Your task to perform on an android device: turn pop-ups off in chrome Image 0: 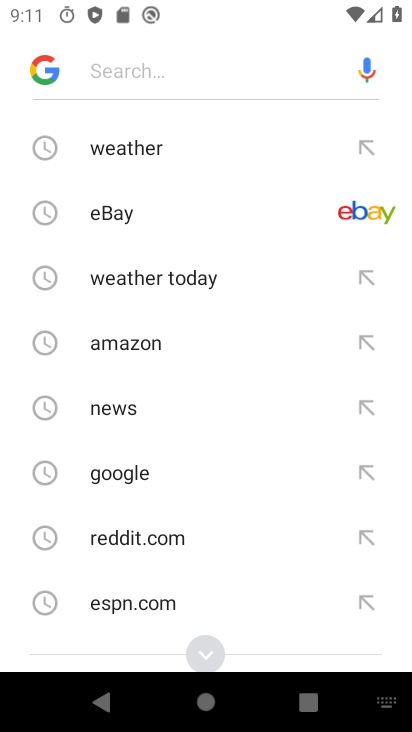
Step 0: press home button
Your task to perform on an android device: turn pop-ups off in chrome Image 1: 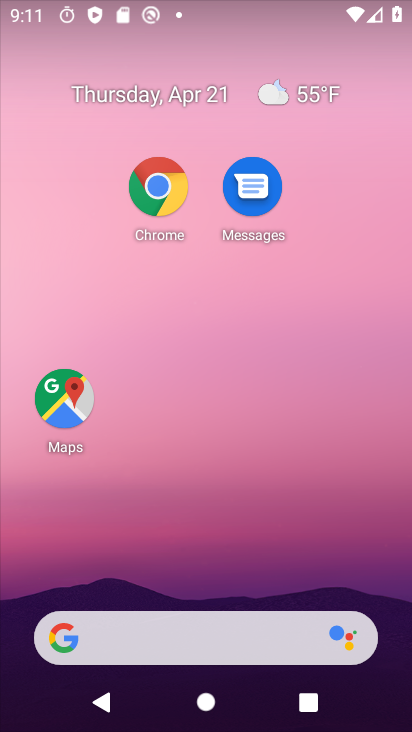
Step 1: click (154, 192)
Your task to perform on an android device: turn pop-ups off in chrome Image 2: 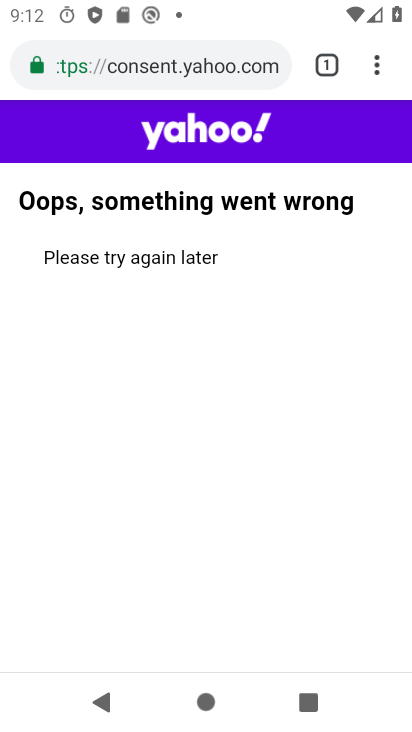
Step 2: click (372, 59)
Your task to perform on an android device: turn pop-ups off in chrome Image 3: 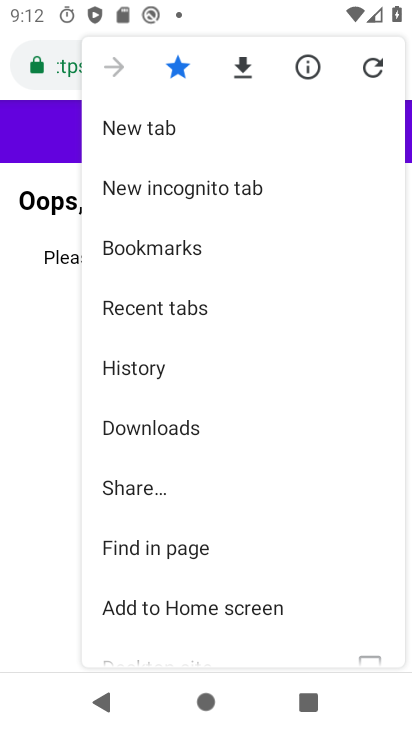
Step 3: drag from (191, 569) to (286, 117)
Your task to perform on an android device: turn pop-ups off in chrome Image 4: 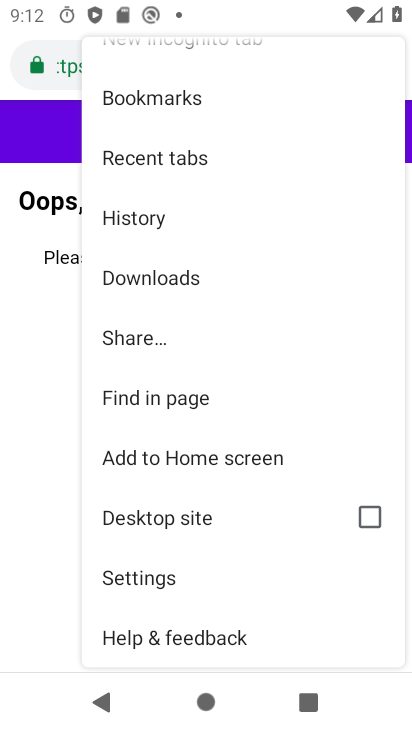
Step 4: click (161, 592)
Your task to perform on an android device: turn pop-ups off in chrome Image 5: 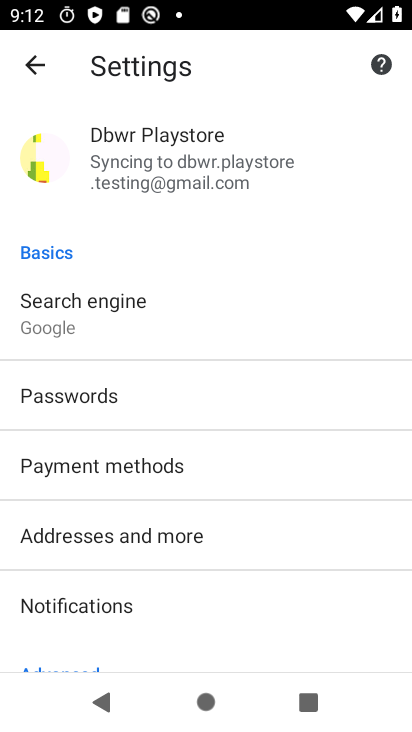
Step 5: drag from (159, 474) to (205, 98)
Your task to perform on an android device: turn pop-ups off in chrome Image 6: 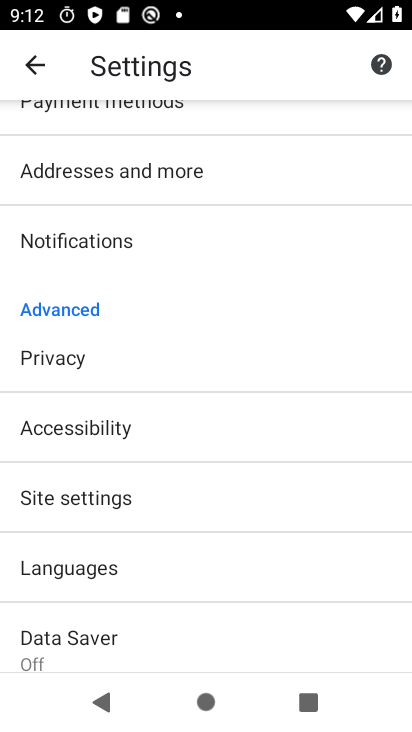
Step 6: click (134, 489)
Your task to perform on an android device: turn pop-ups off in chrome Image 7: 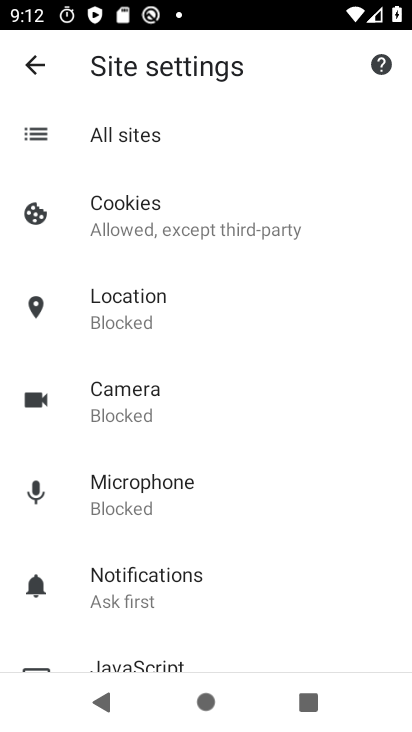
Step 7: drag from (212, 555) to (282, 195)
Your task to perform on an android device: turn pop-ups off in chrome Image 8: 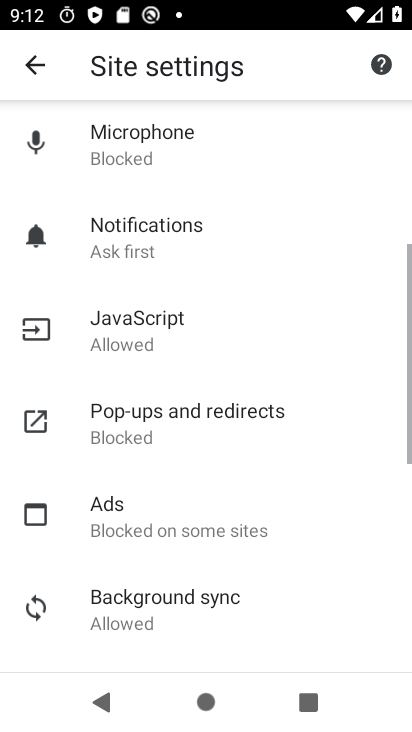
Step 8: click (182, 438)
Your task to perform on an android device: turn pop-ups off in chrome Image 9: 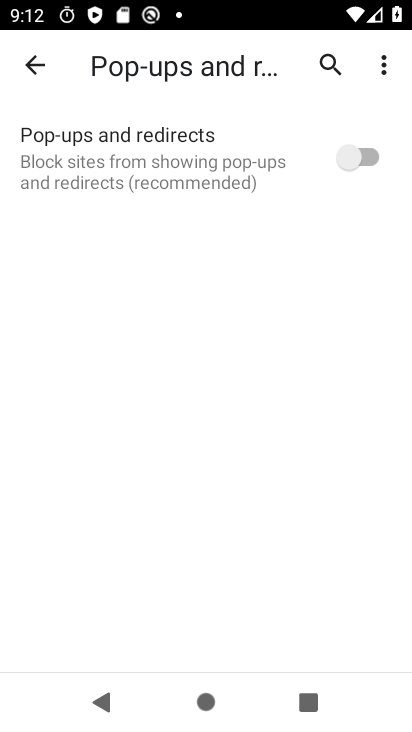
Step 9: task complete